Your task to perform on an android device: Show me popular videos on Youtube Image 0: 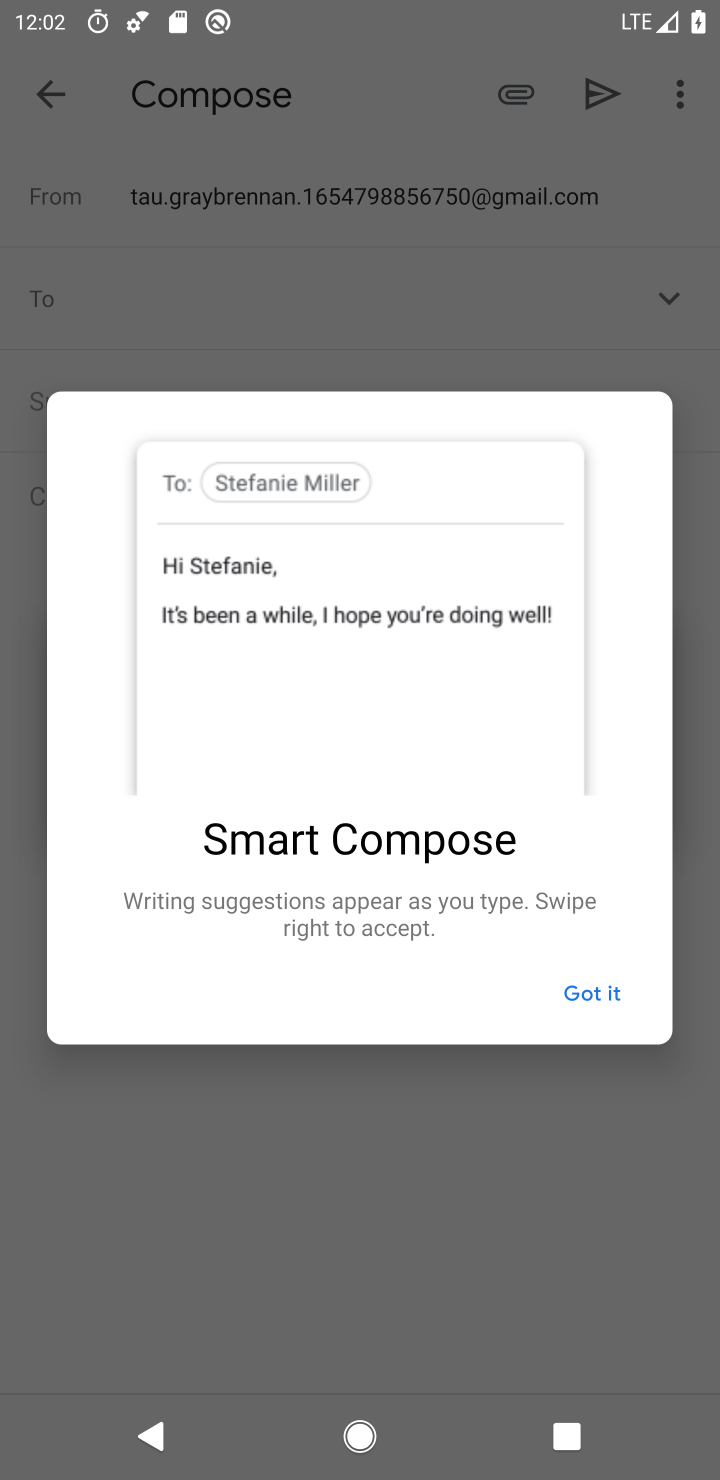
Step 0: press home button
Your task to perform on an android device: Show me popular videos on Youtube Image 1: 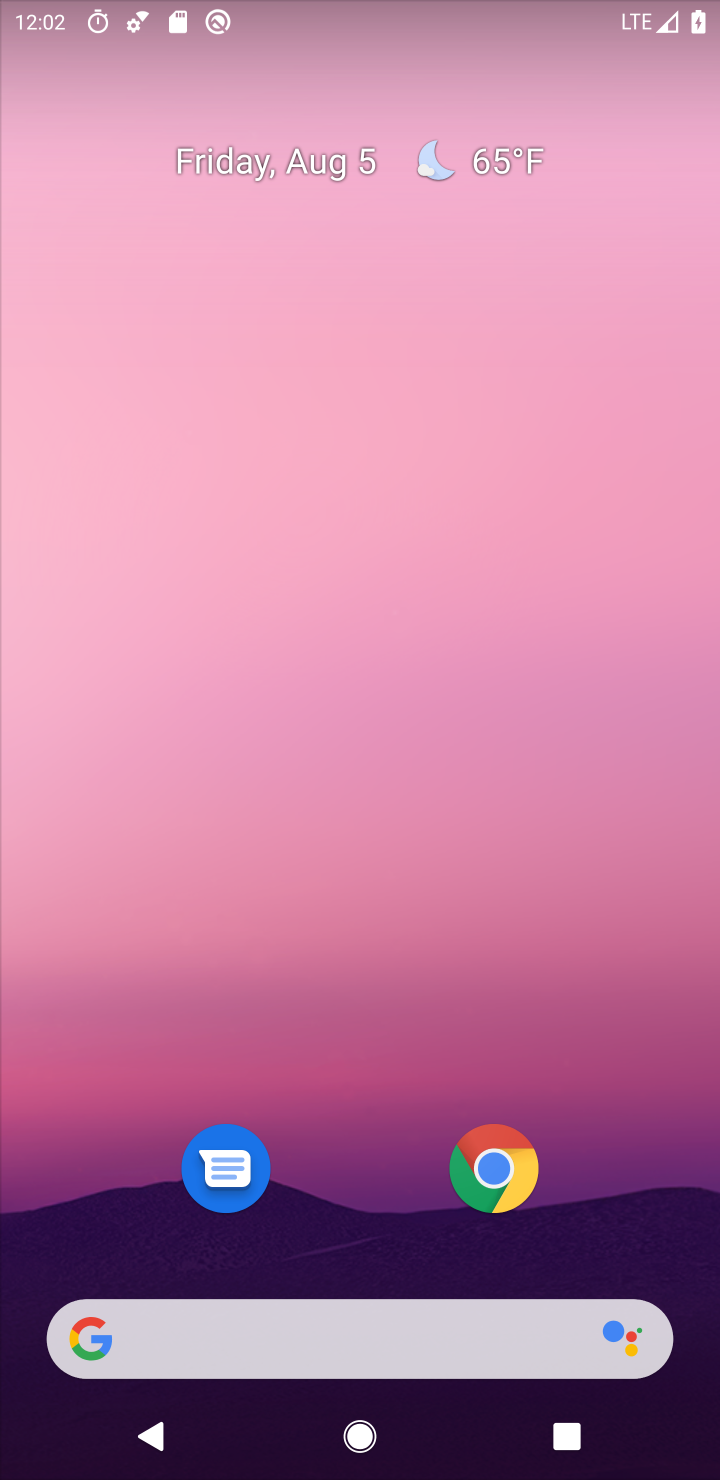
Step 1: drag from (306, 1230) to (386, 4)
Your task to perform on an android device: Show me popular videos on Youtube Image 2: 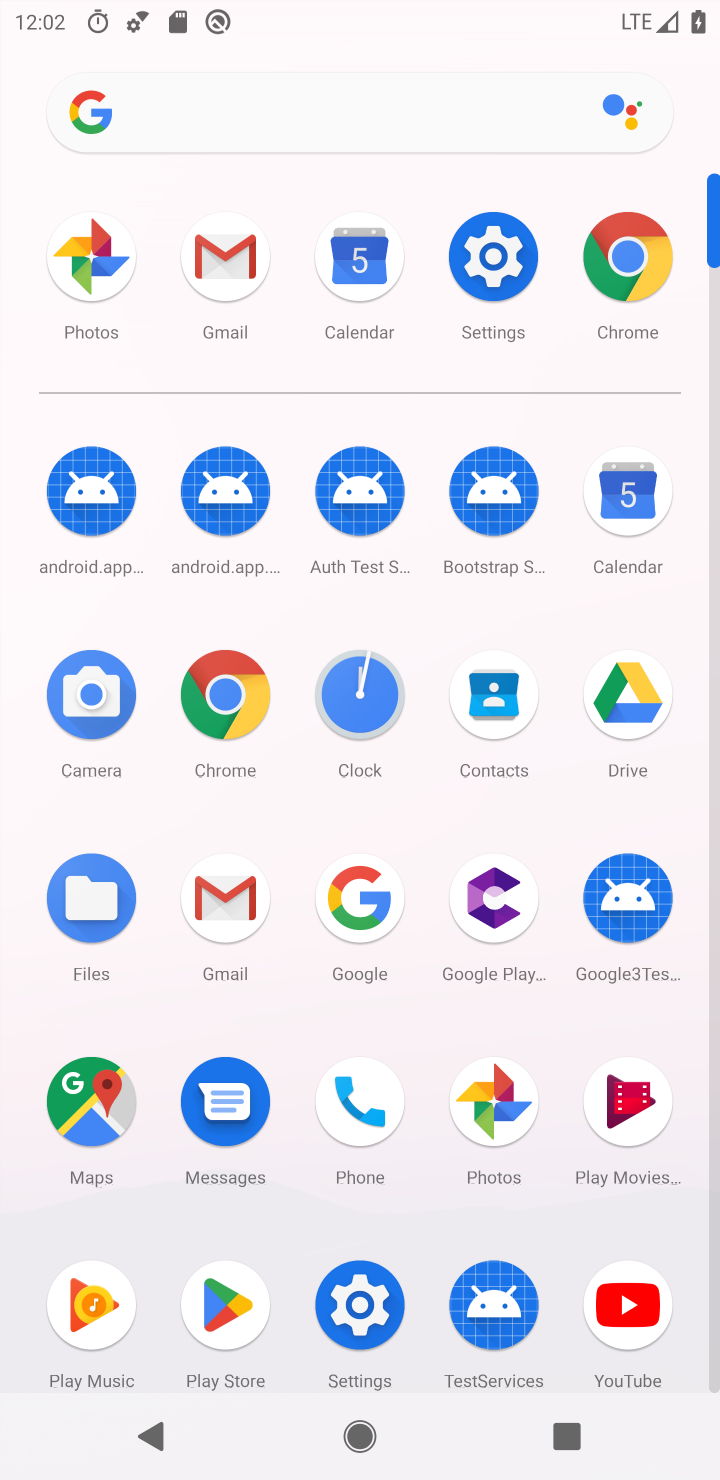
Step 2: click (621, 1328)
Your task to perform on an android device: Show me popular videos on Youtube Image 3: 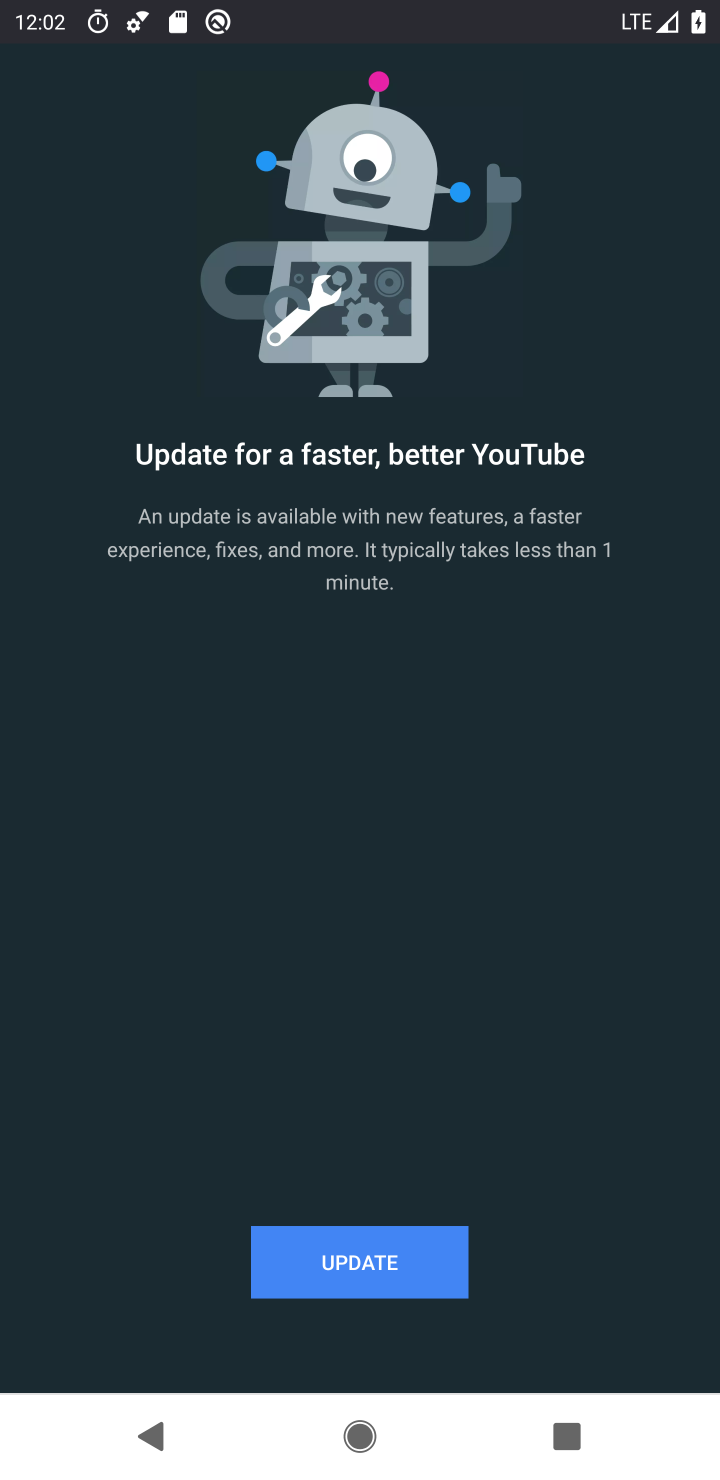
Step 3: click (418, 1275)
Your task to perform on an android device: Show me popular videos on Youtube Image 4: 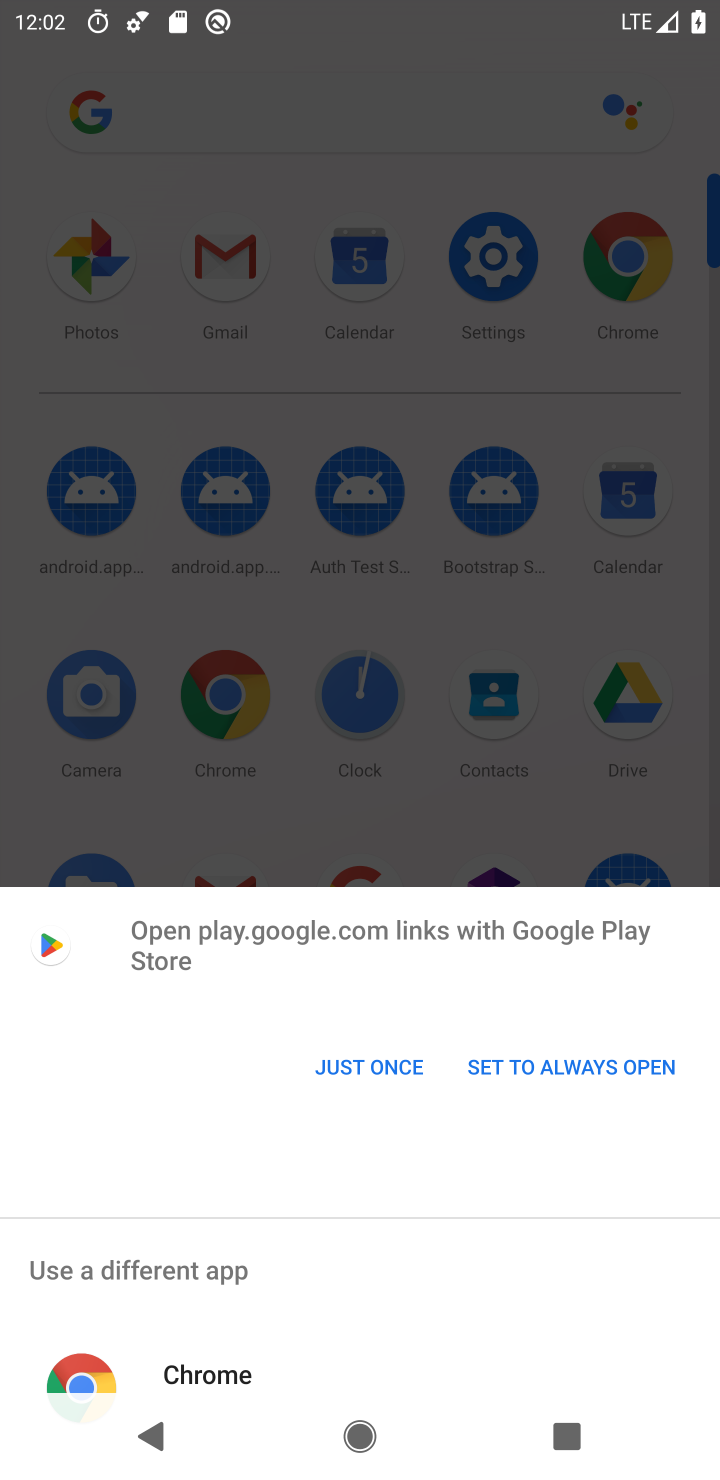
Step 4: click (368, 1058)
Your task to perform on an android device: Show me popular videos on Youtube Image 5: 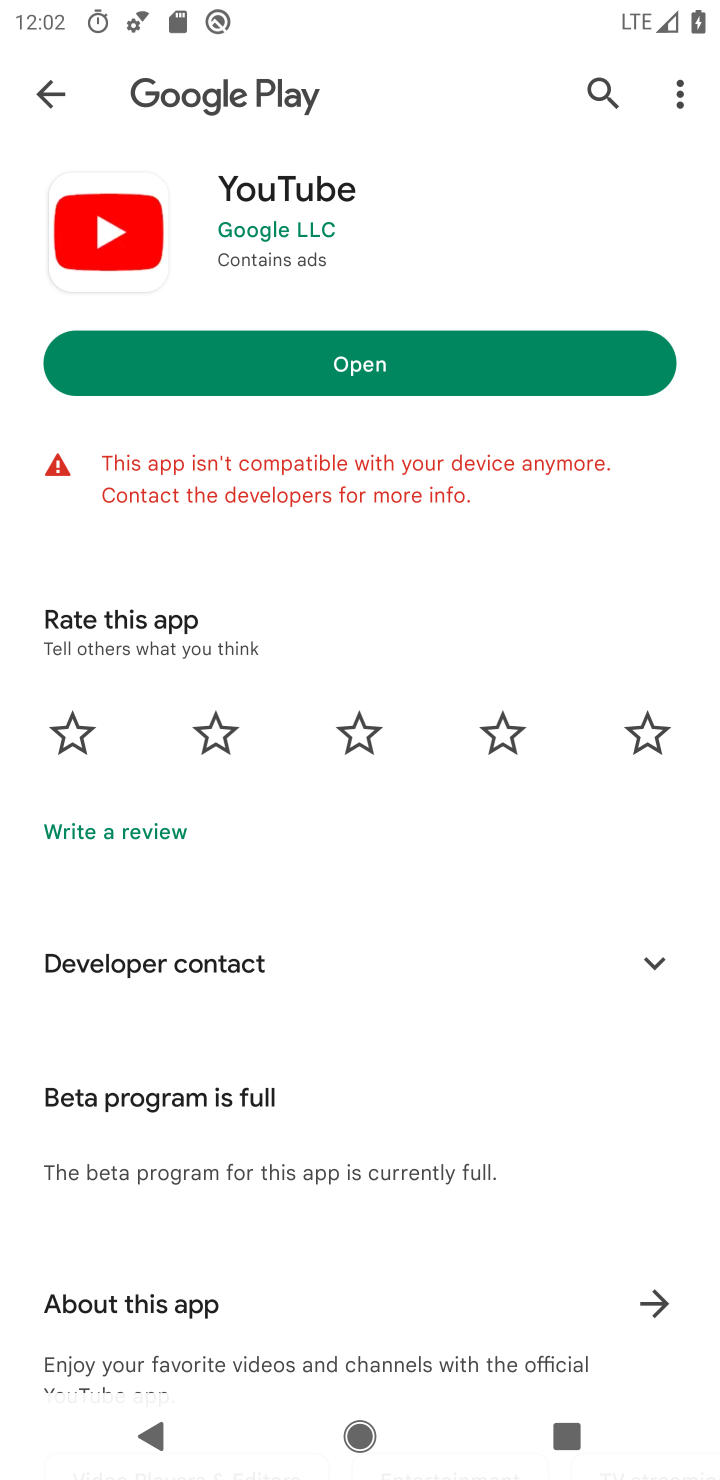
Step 5: click (389, 366)
Your task to perform on an android device: Show me popular videos on Youtube Image 6: 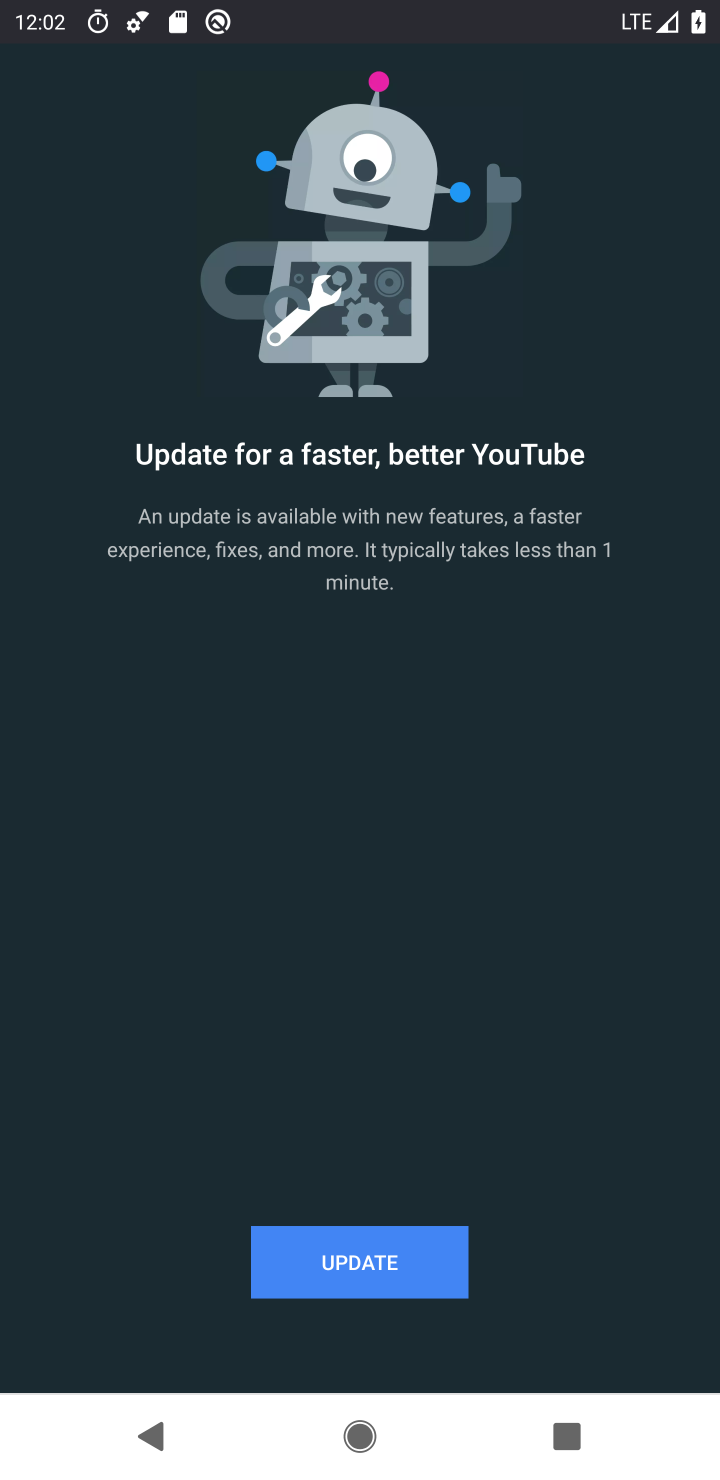
Step 6: click (426, 1270)
Your task to perform on an android device: Show me popular videos on Youtube Image 7: 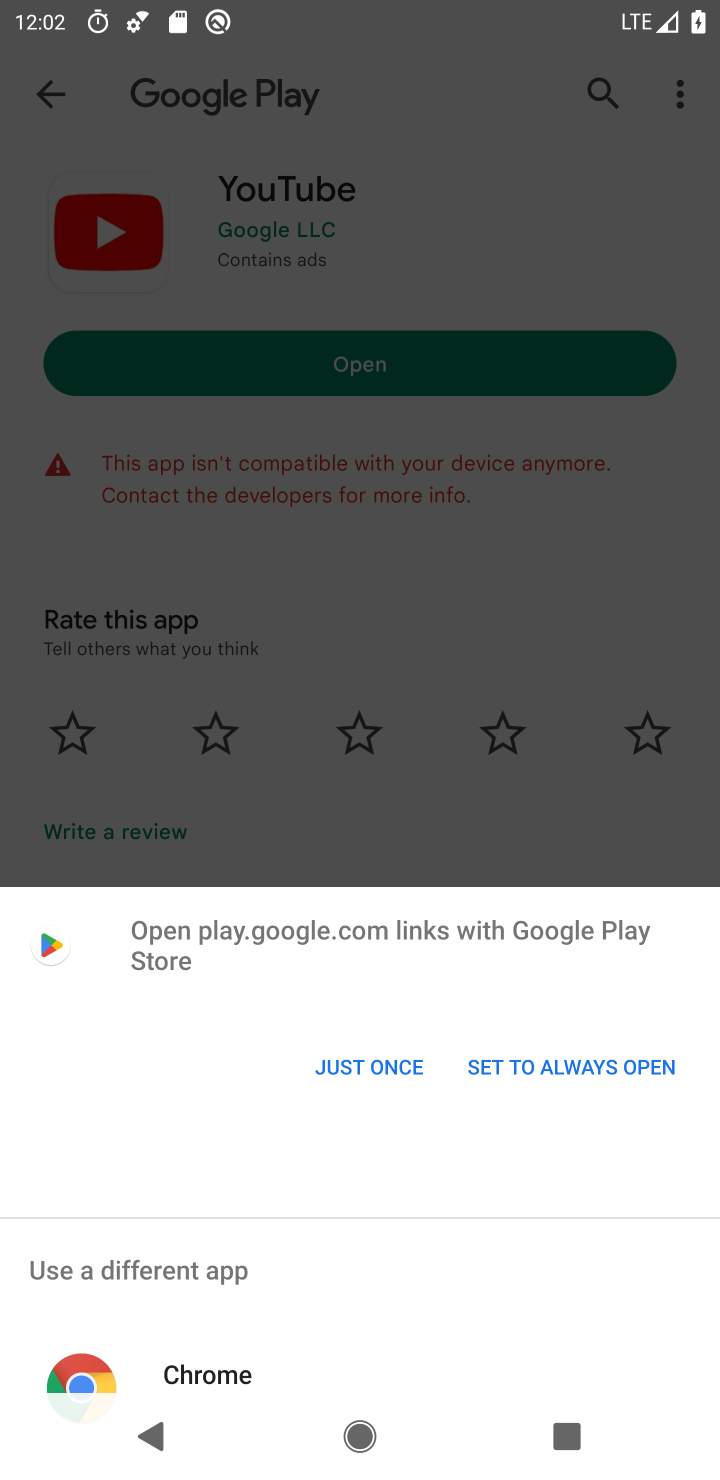
Step 7: click (371, 1062)
Your task to perform on an android device: Show me popular videos on Youtube Image 8: 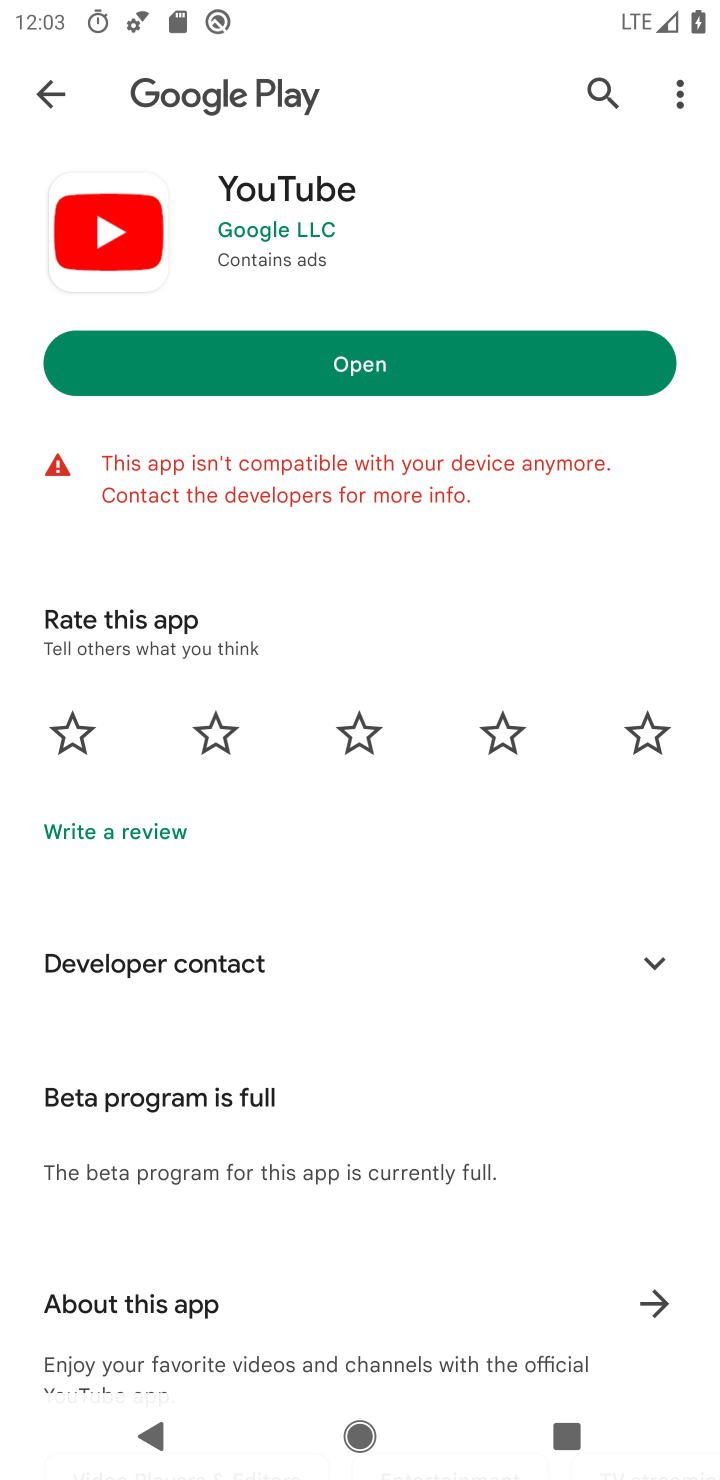
Step 8: task complete